Your task to perform on an android device: Go to eBay Image 0: 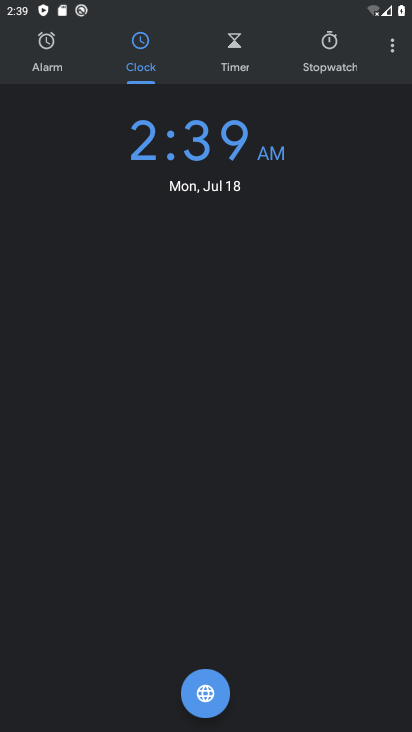
Step 0: press home button
Your task to perform on an android device: Go to eBay Image 1: 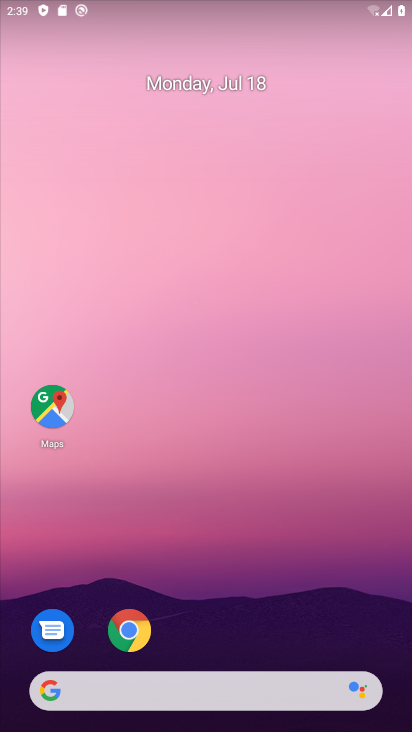
Step 1: click (136, 623)
Your task to perform on an android device: Go to eBay Image 2: 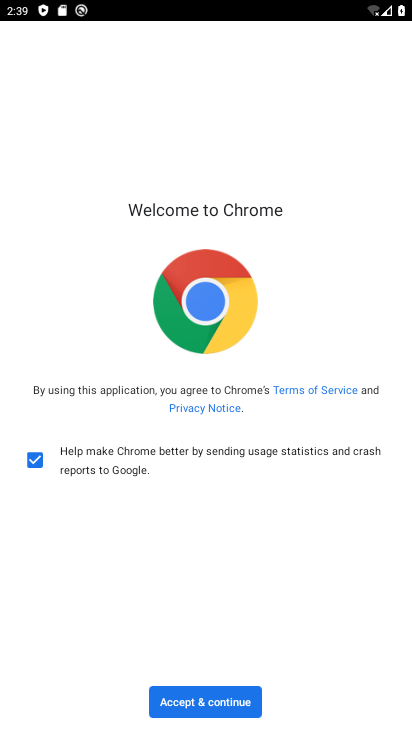
Step 2: click (214, 697)
Your task to perform on an android device: Go to eBay Image 3: 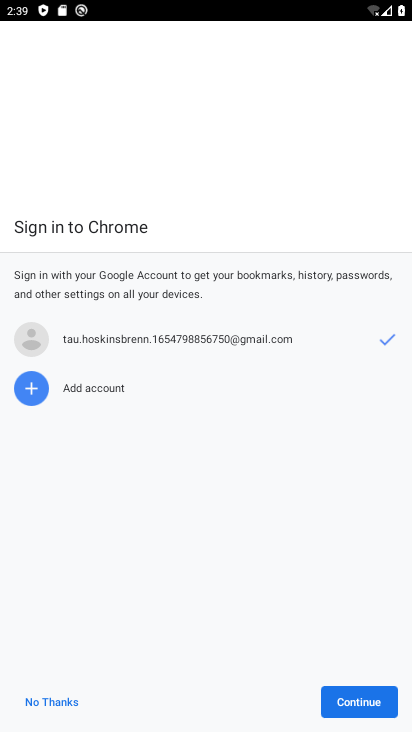
Step 3: click (352, 699)
Your task to perform on an android device: Go to eBay Image 4: 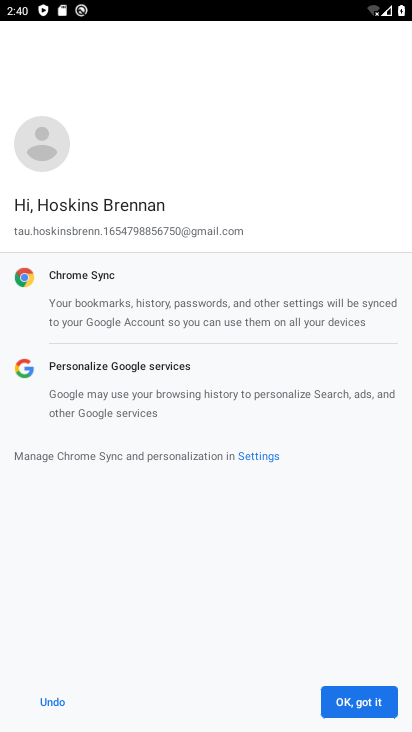
Step 4: click (352, 699)
Your task to perform on an android device: Go to eBay Image 5: 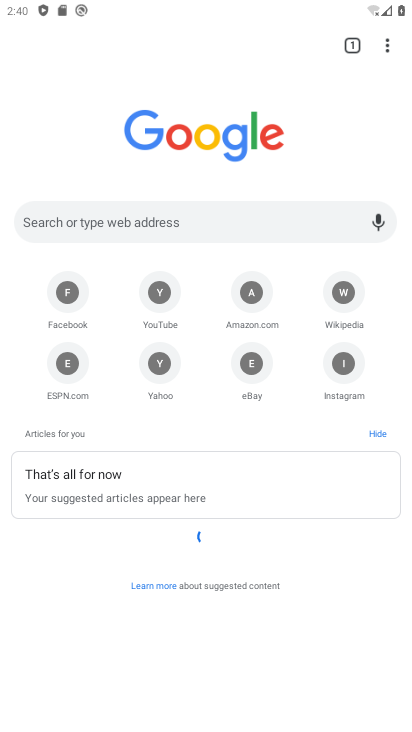
Step 5: click (256, 363)
Your task to perform on an android device: Go to eBay Image 6: 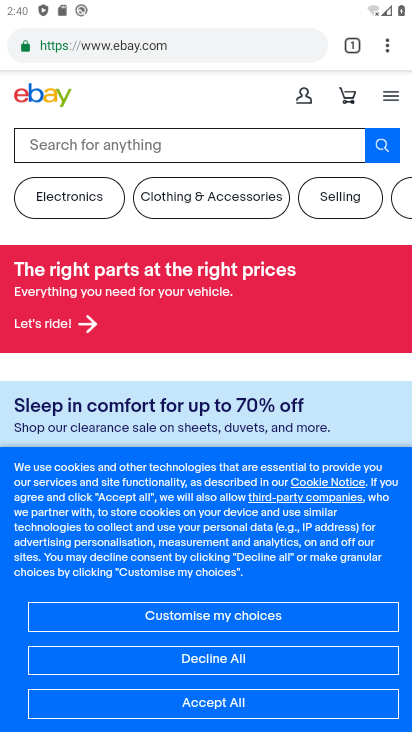
Step 6: task complete